Your task to perform on an android device: What's the latest video from IGN? Image 0: 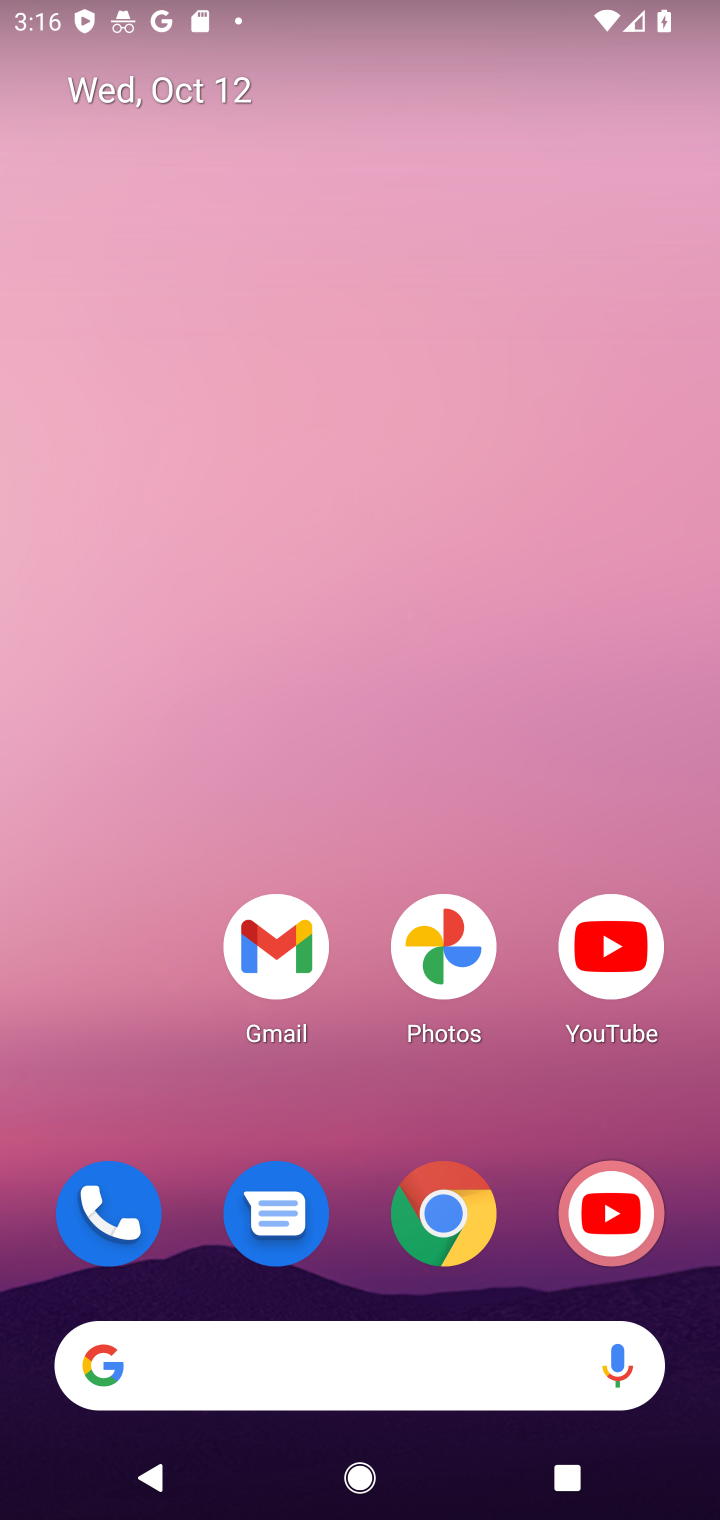
Step 0: click (612, 1219)
Your task to perform on an android device: What's the latest video from IGN? Image 1: 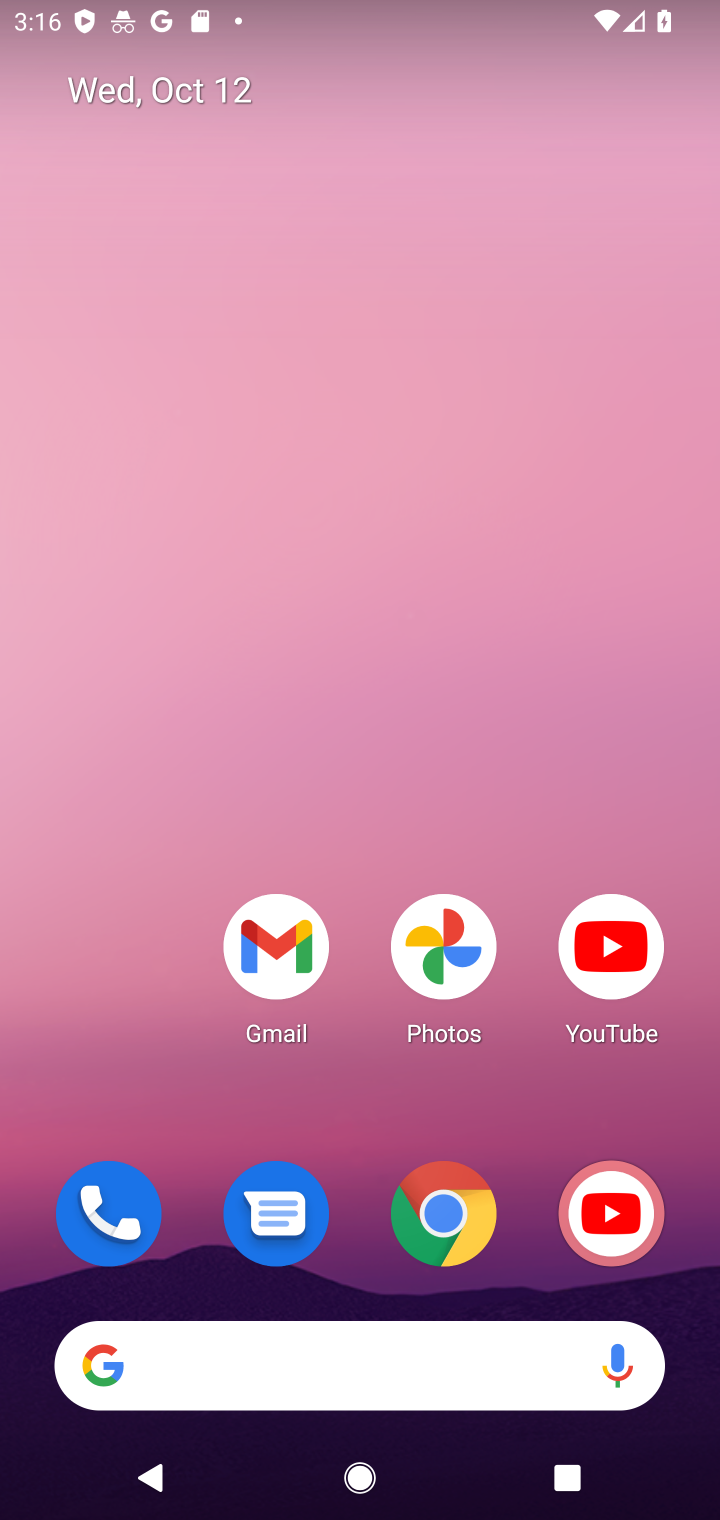
Step 1: click (576, 1213)
Your task to perform on an android device: What's the latest video from IGN? Image 2: 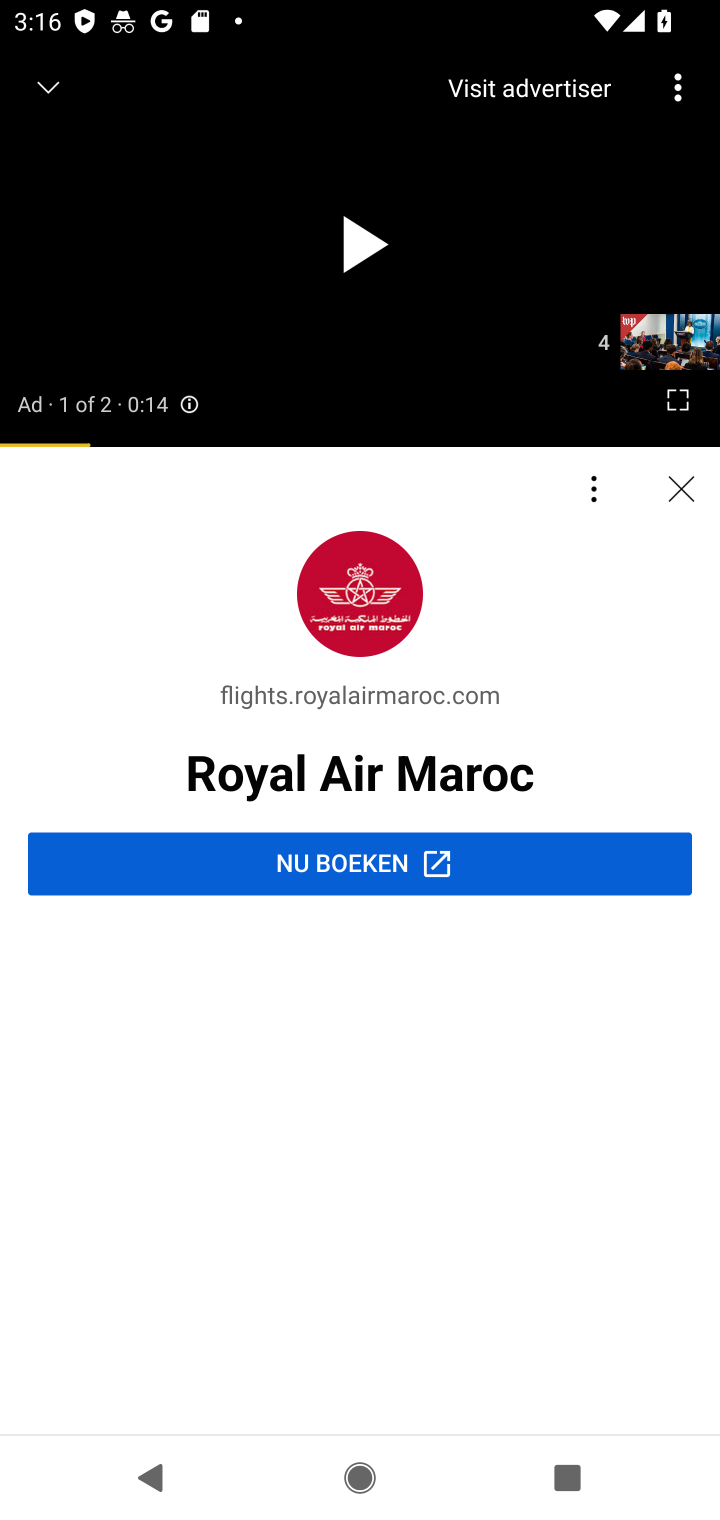
Step 2: click (44, 82)
Your task to perform on an android device: What's the latest video from IGN? Image 3: 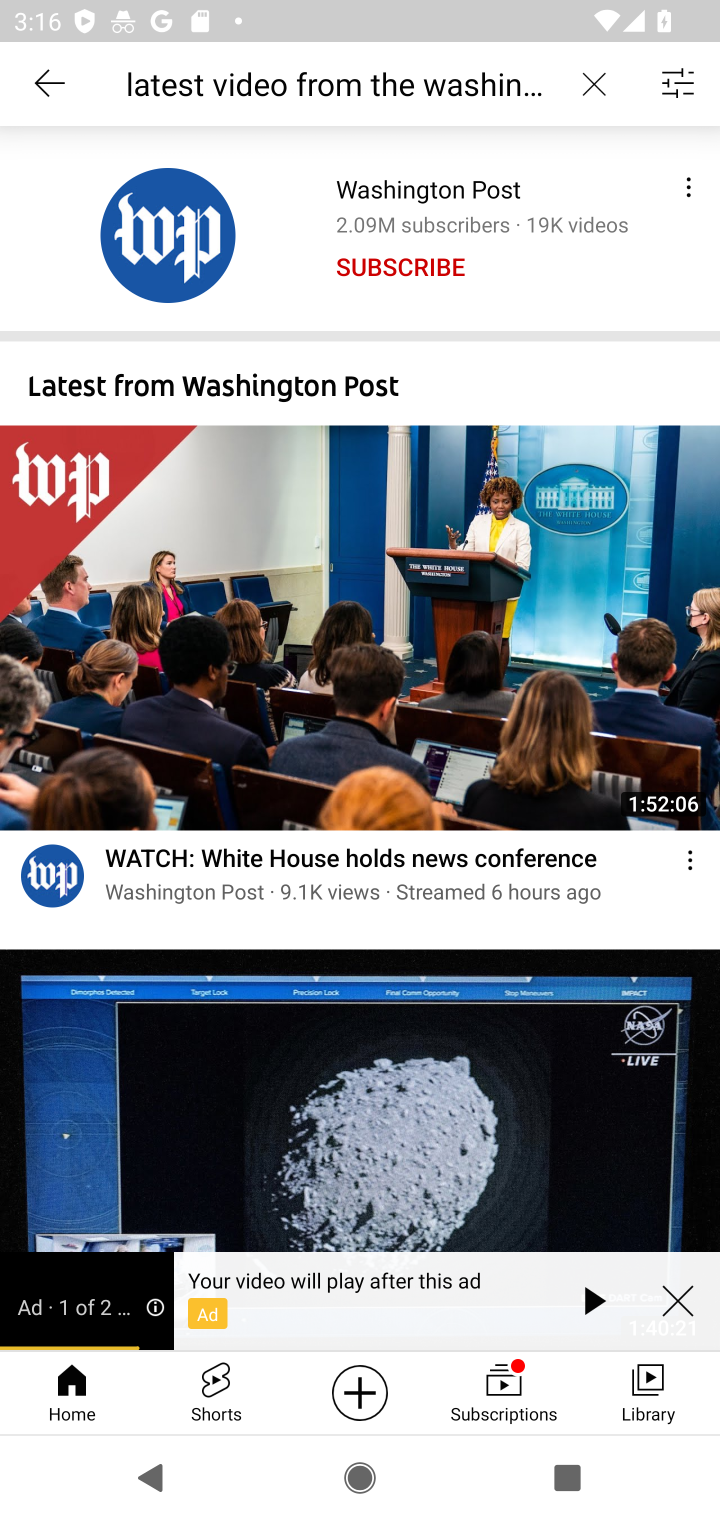
Step 3: click (593, 68)
Your task to perform on an android device: What's the latest video from IGN? Image 4: 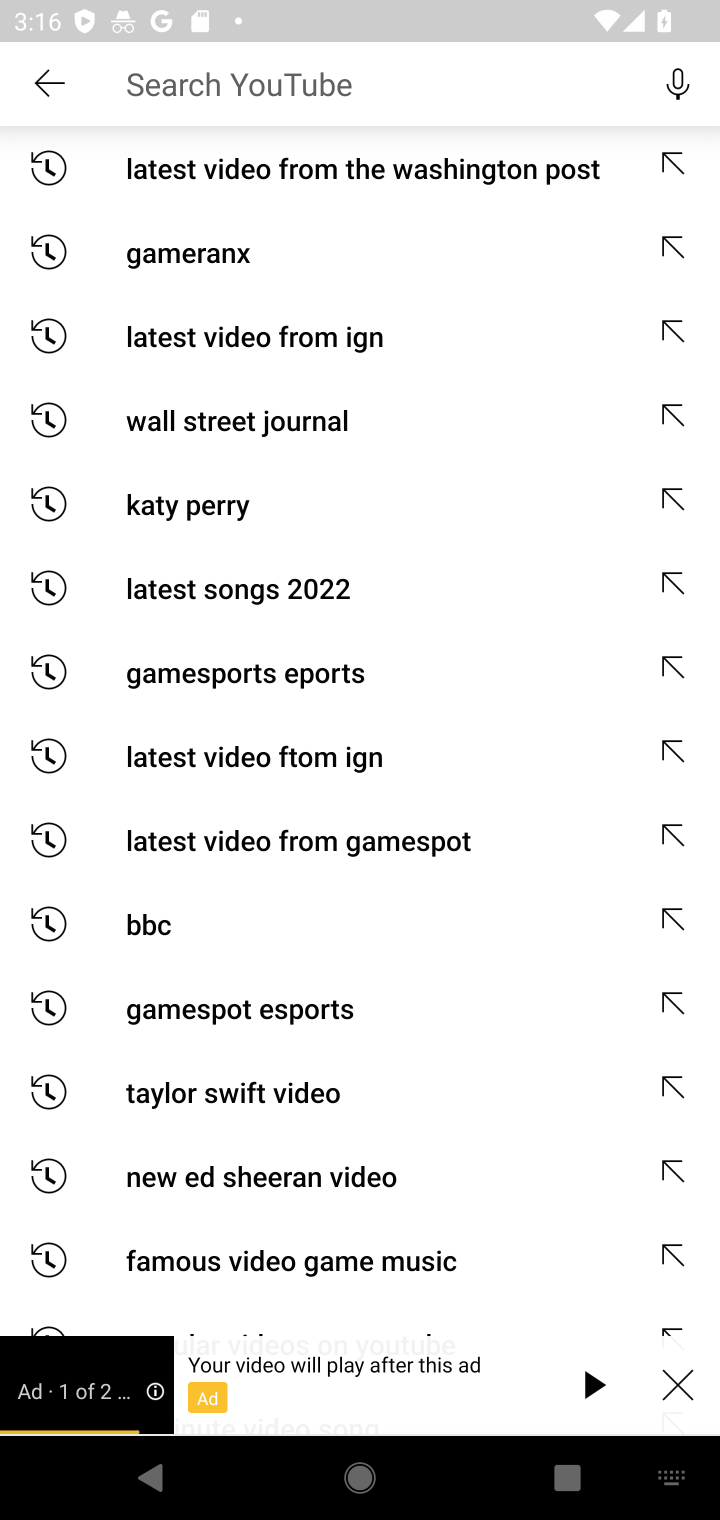
Step 4: click (521, 98)
Your task to perform on an android device: What's the latest video from IGN? Image 5: 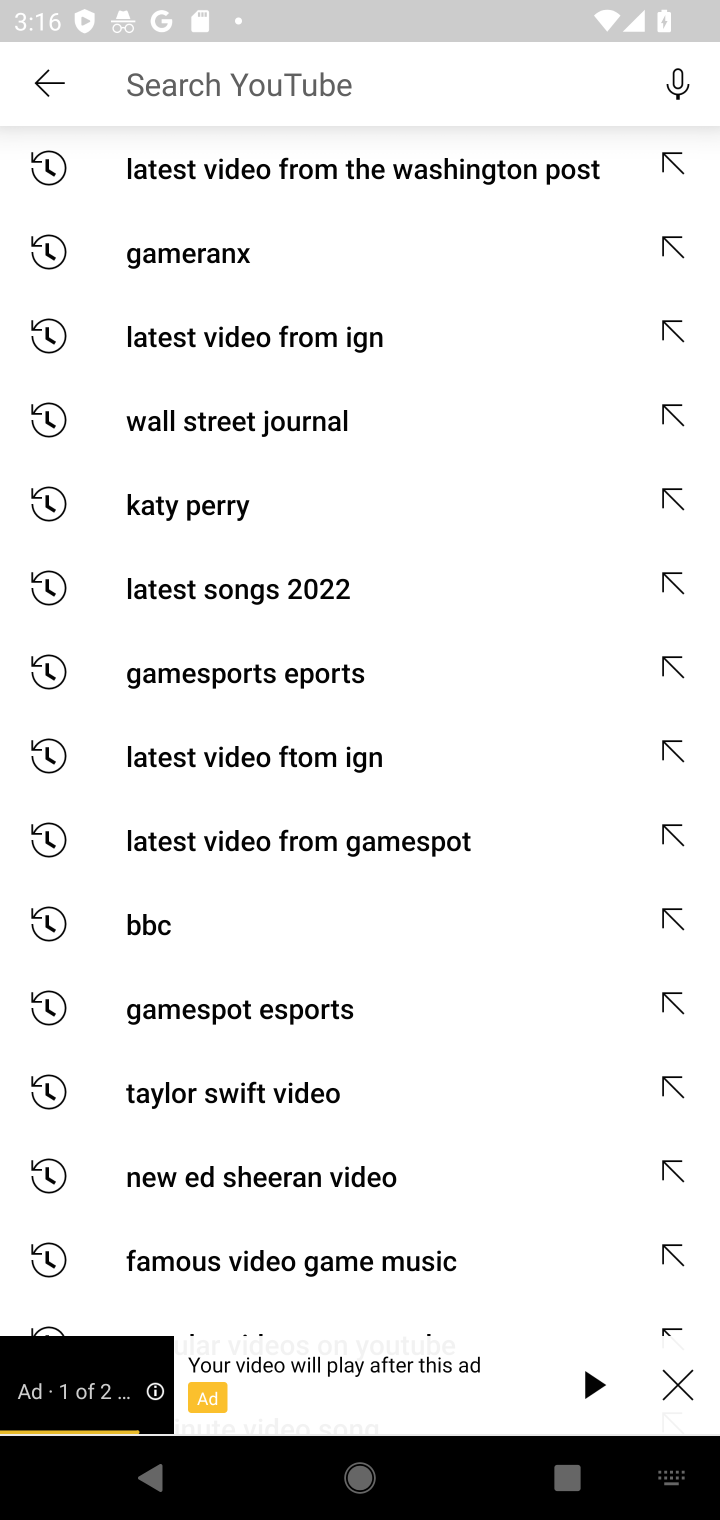
Step 5: type "ign lates video"
Your task to perform on an android device: What's the latest video from IGN? Image 6: 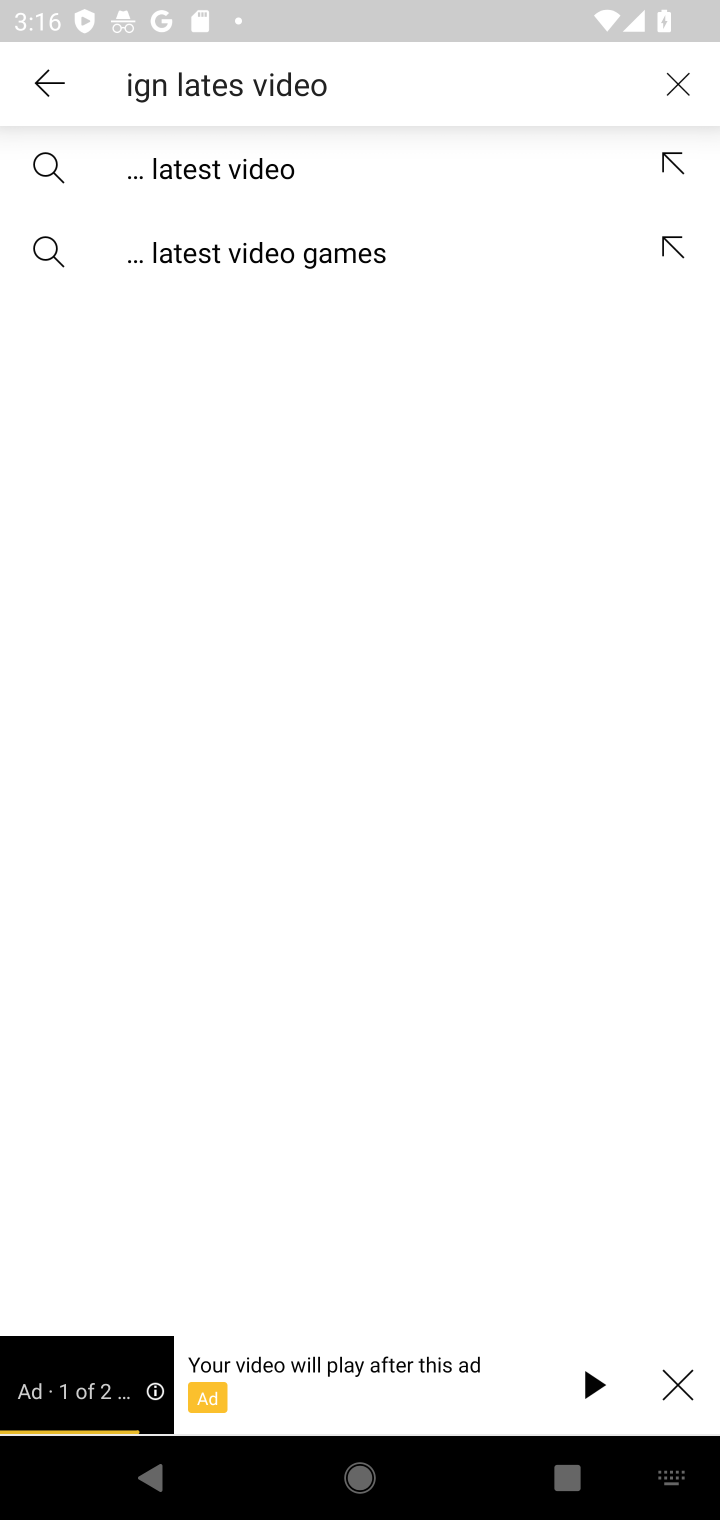
Step 6: click (229, 199)
Your task to perform on an android device: What's the latest video from IGN? Image 7: 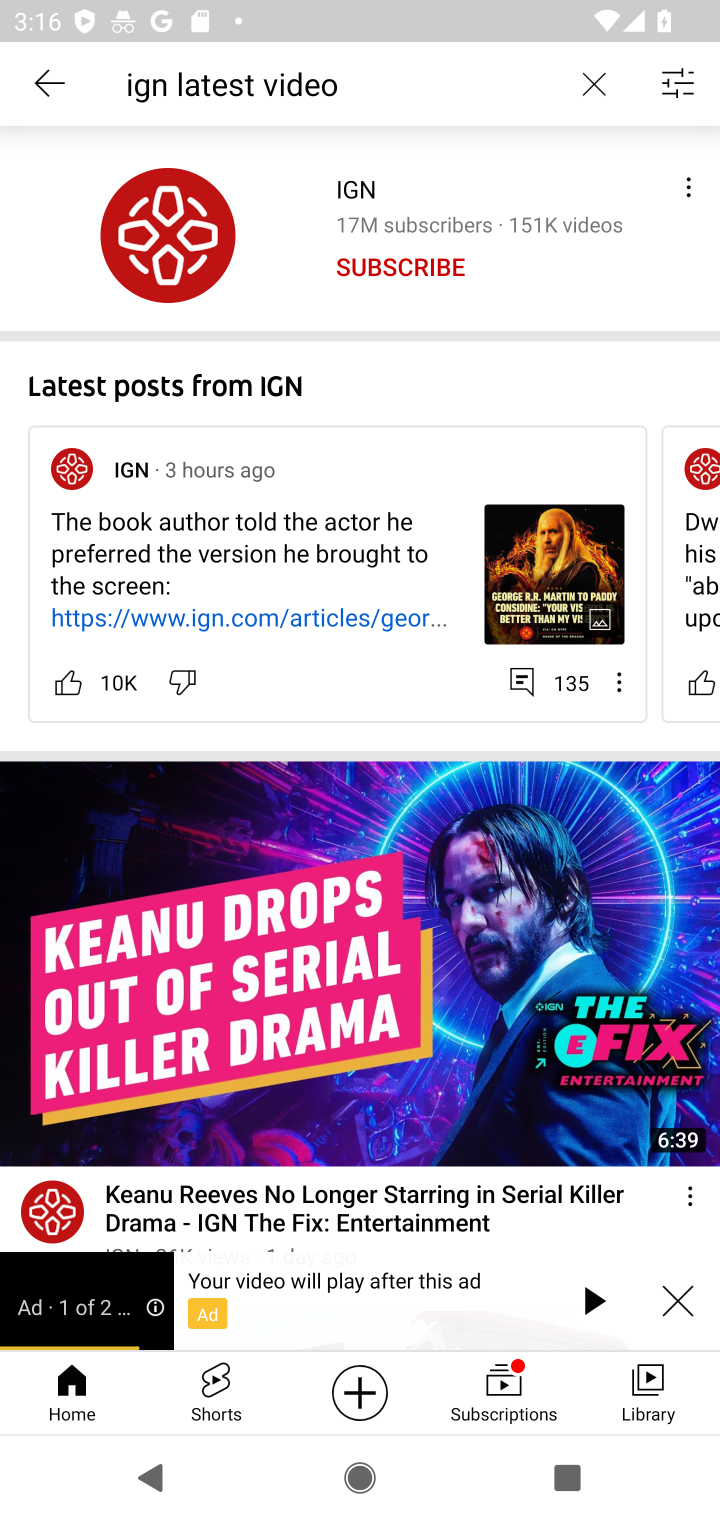
Step 7: click (513, 216)
Your task to perform on an android device: What's the latest video from IGN? Image 8: 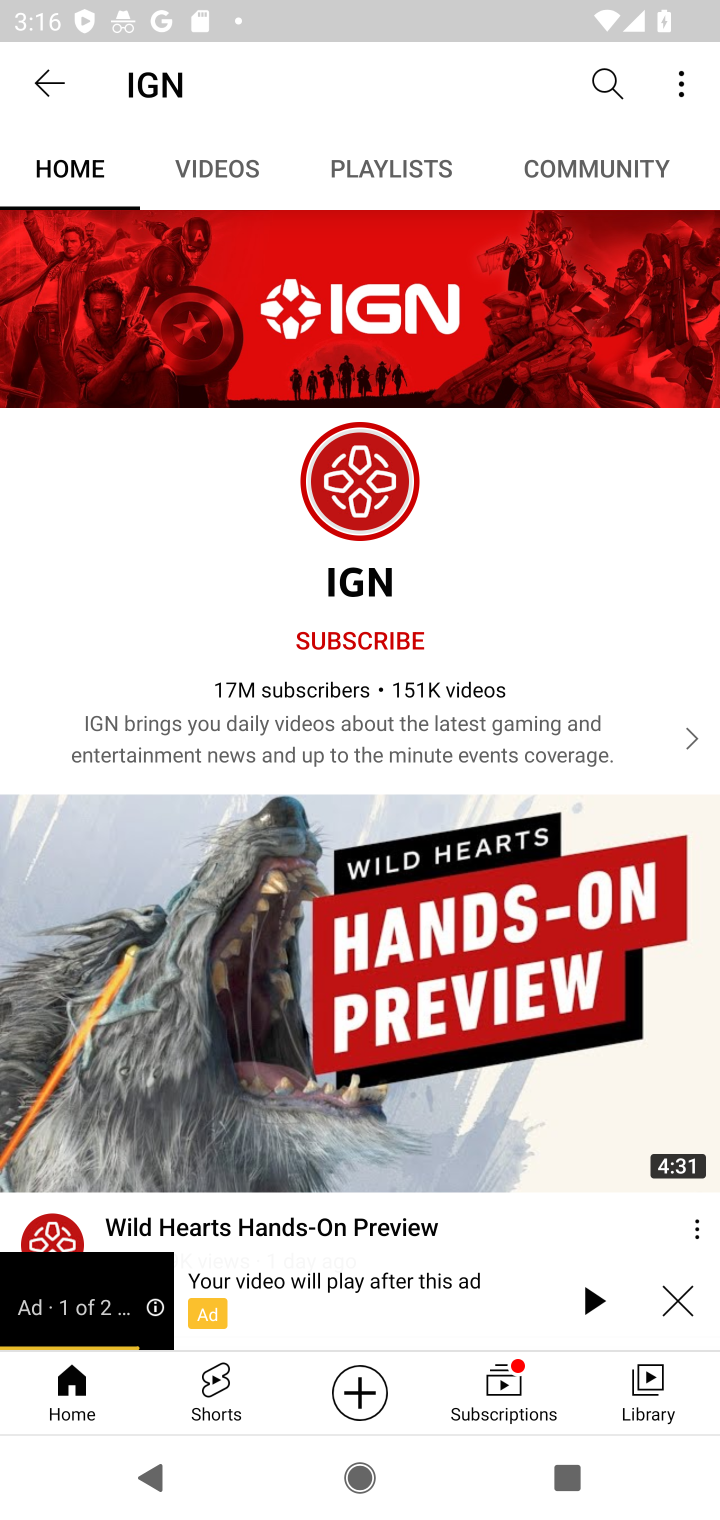
Step 8: click (189, 178)
Your task to perform on an android device: What's the latest video from IGN? Image 9: 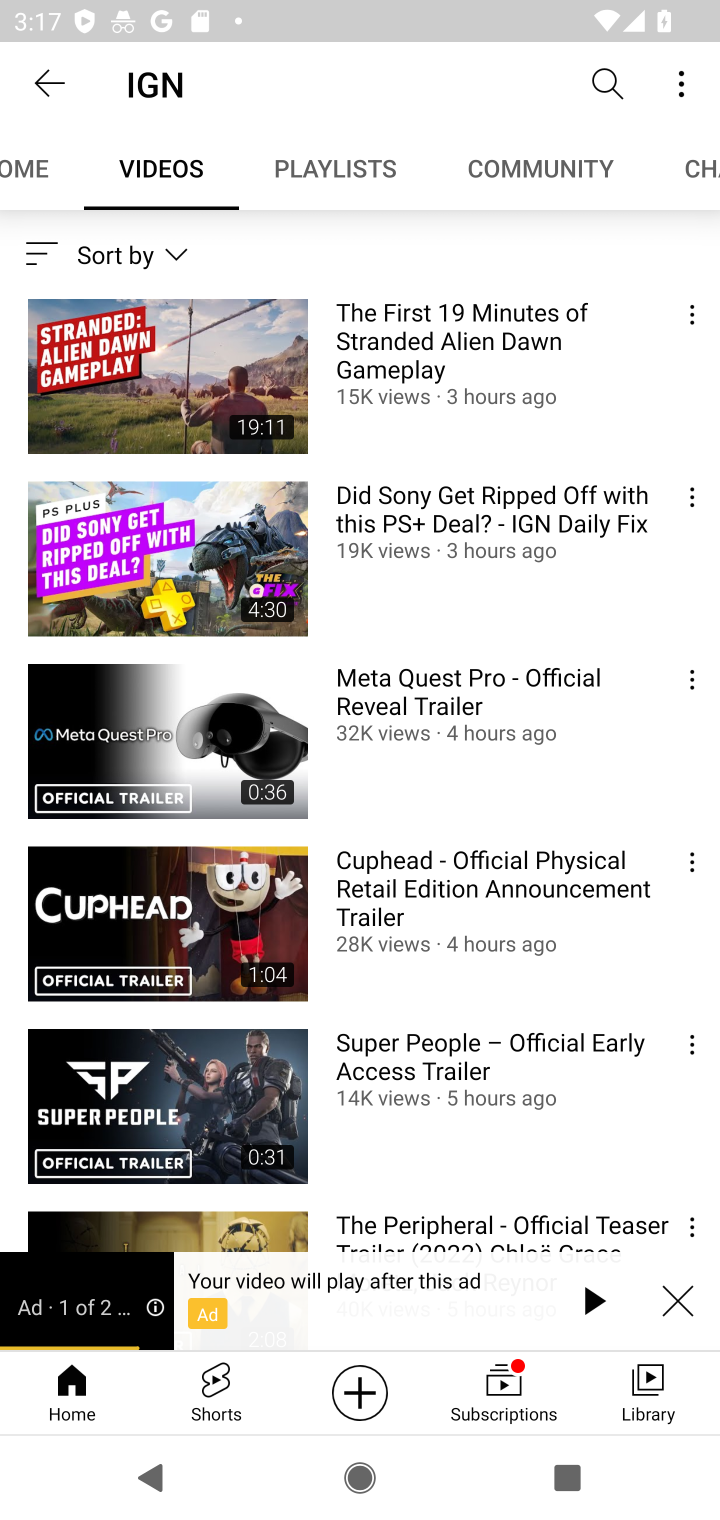
Step 9: click (175, 352)
Your task to perform on an android device: What's the latest video from IGN? Image 10: 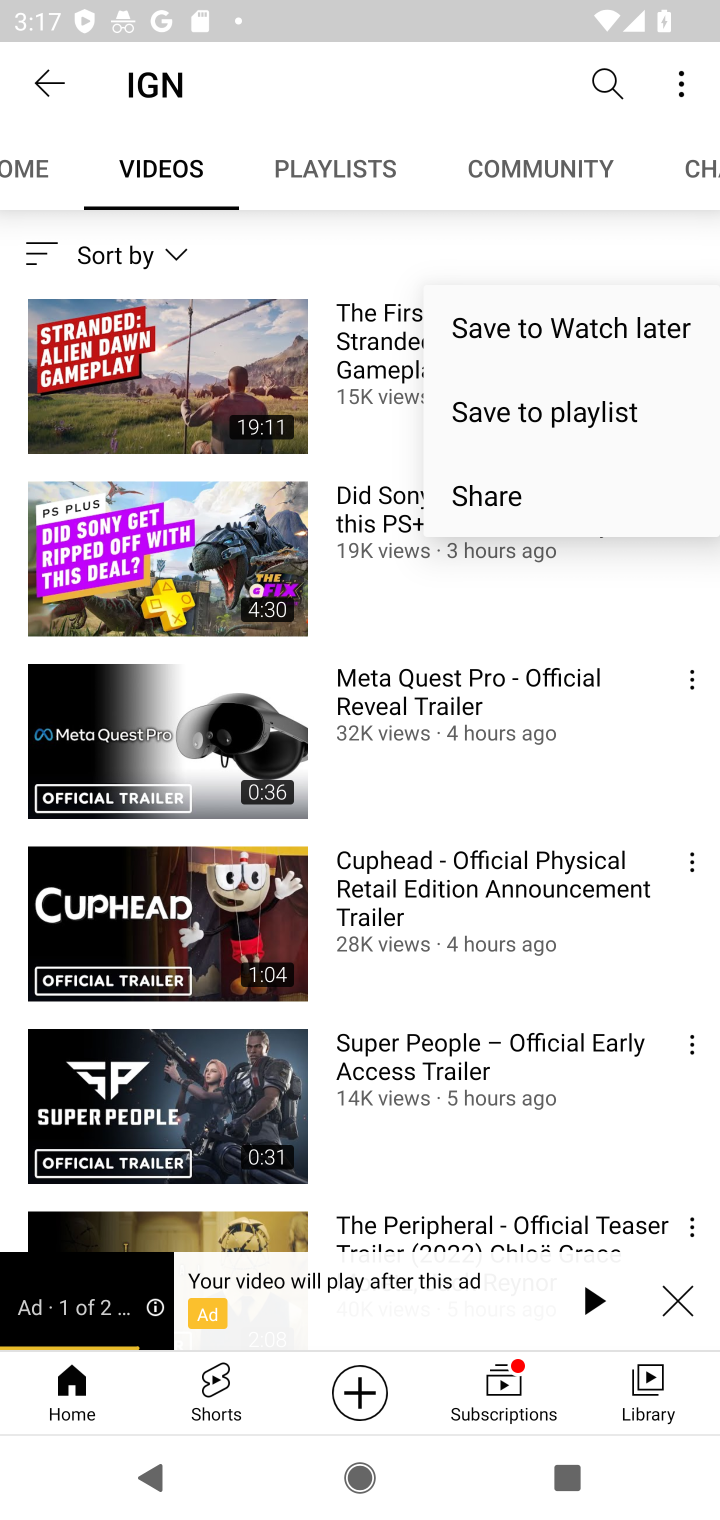
Step 10: click (161, 366)
Your task to perform on an android device: What's the latest video from IGN? Image 11: 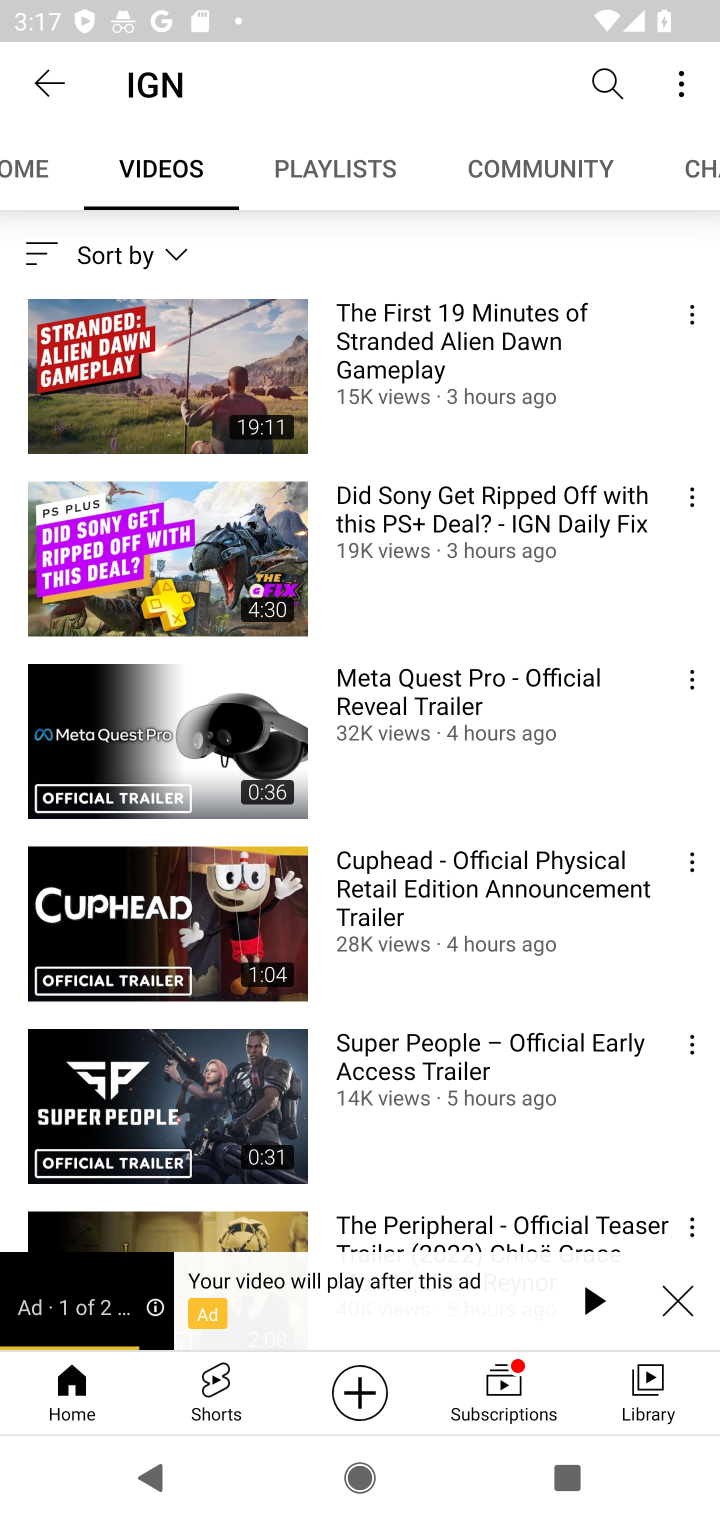
Step 11: click (93, 355)
Your task to perform on an android device: What's the latest video from IGN? Image 12: 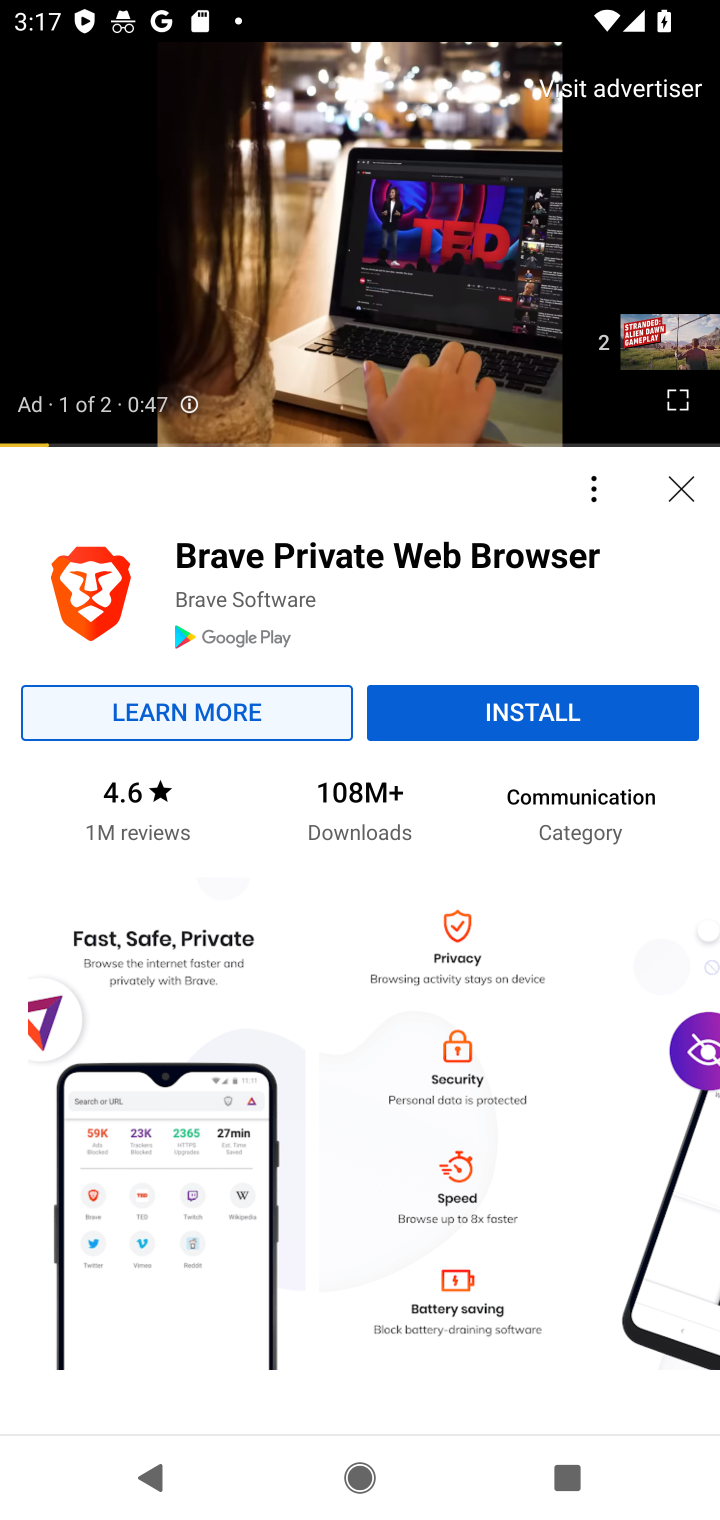
Step 12: click (407, 164)
Your task to perform on an android device: What's the latest video from IGN? Image 13: 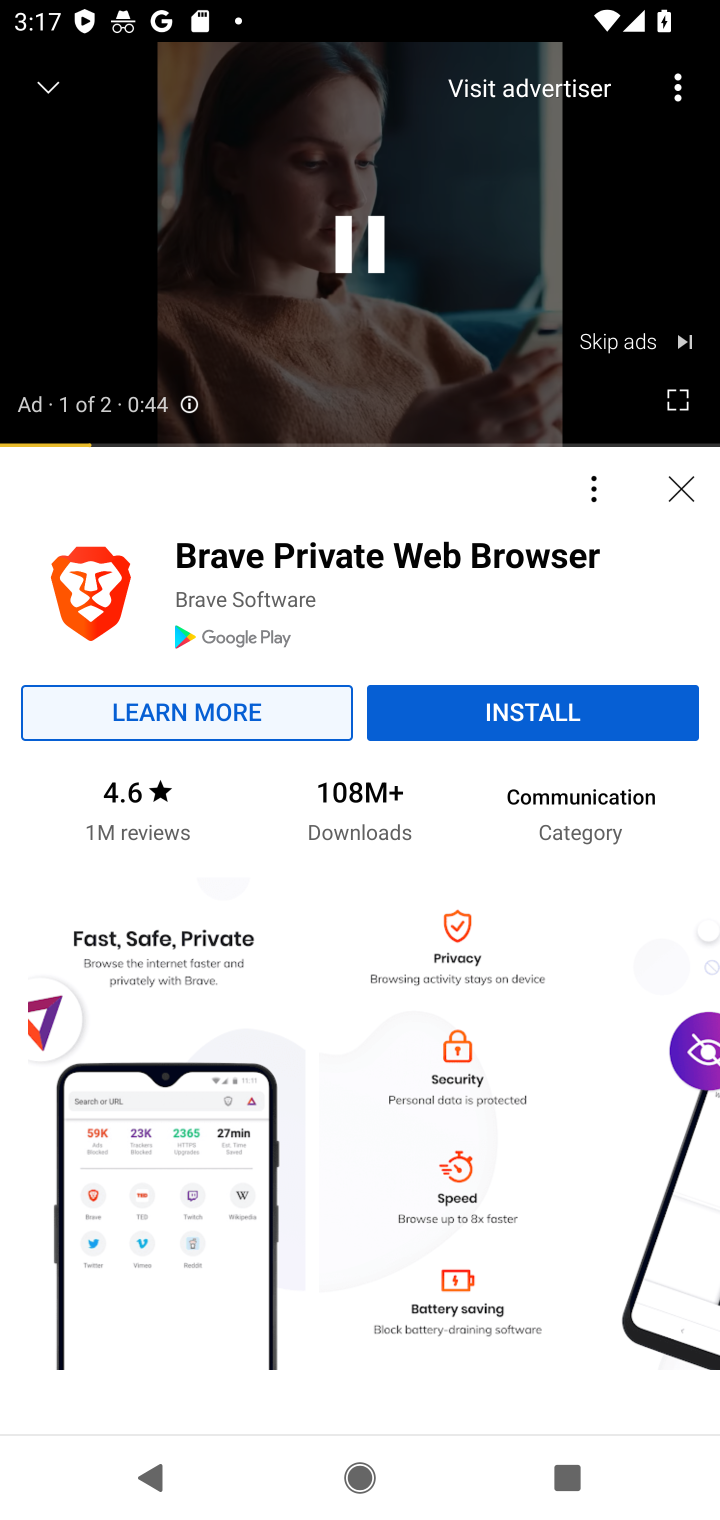
Step 13: click (369, 224)
Your task to perform on an android device: What's the latest video from IGN? Image 14: 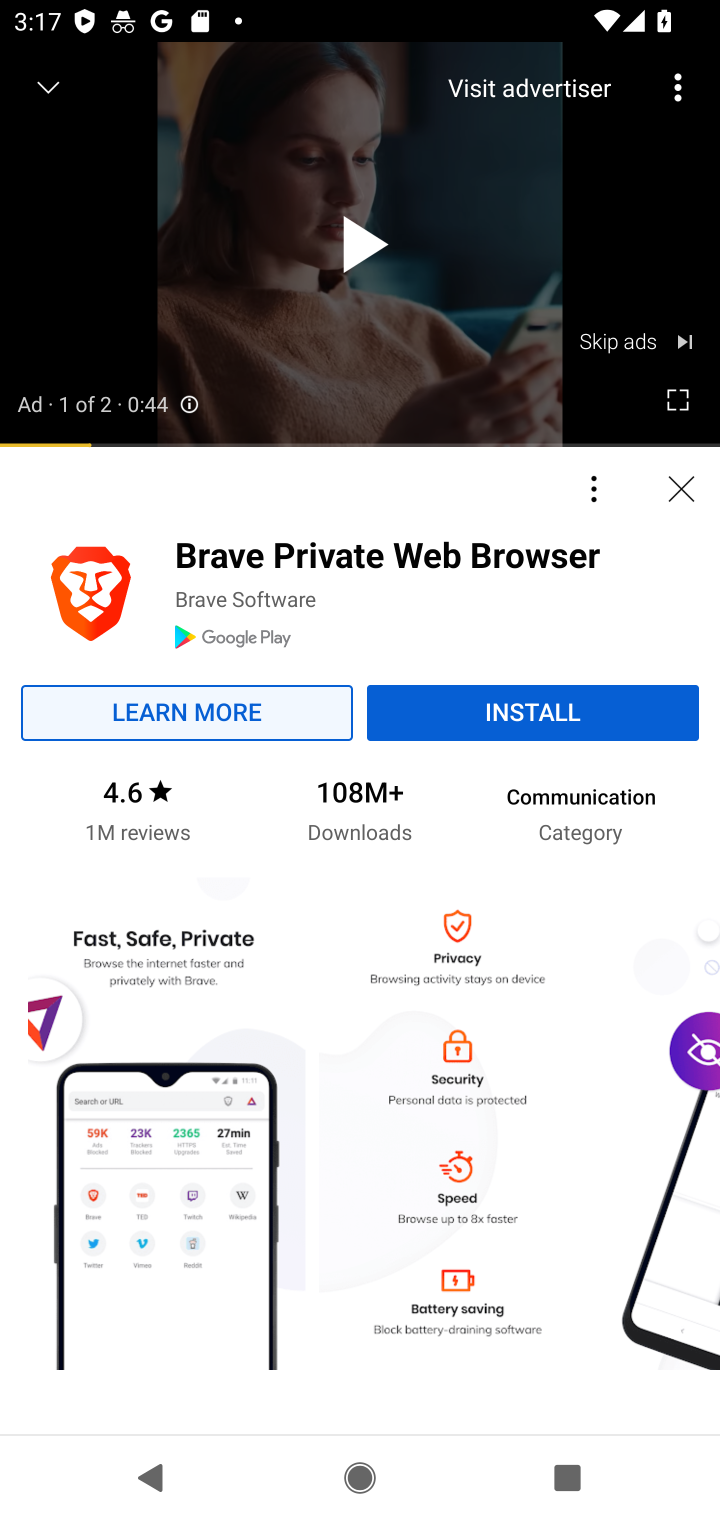
Step 14: task complete